Your task to perform on an android device: Open Reddit.com Image 0: 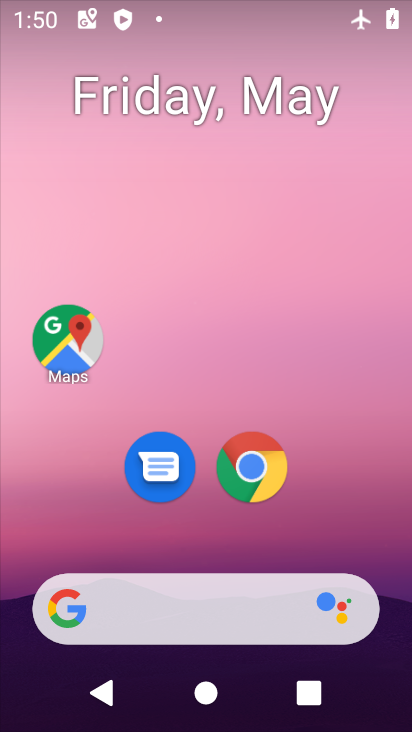
Step 0: drag from (365, 464) to (366, 103)
Your task to perform on an android device: Open Reddit.com Image 1: 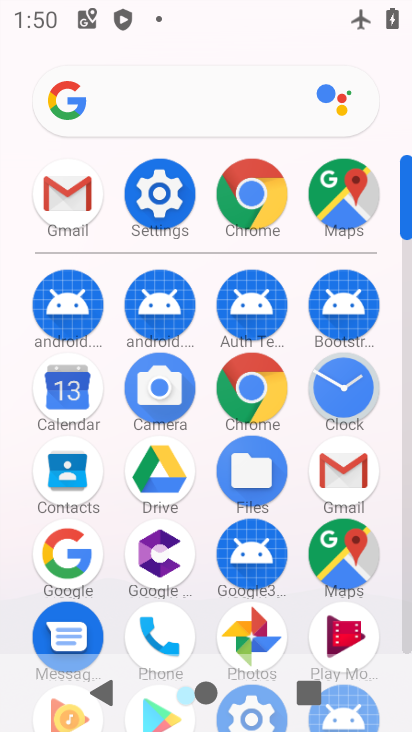
Step 1: click (251, 198)
Your task to perform on an android device: Open Reddit.com Image 2: 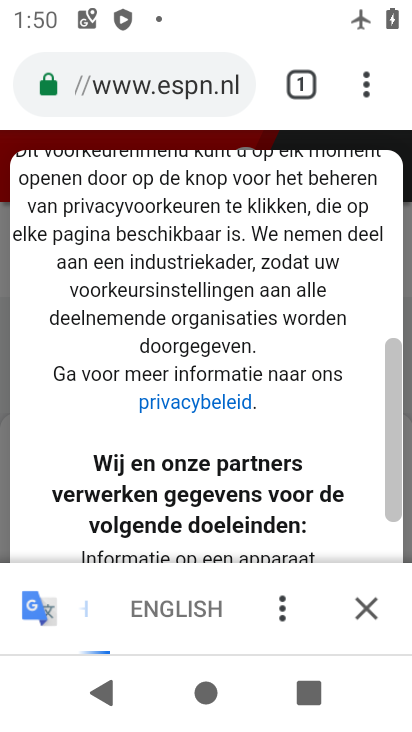
Step 2: click (186, 86)
Your task to perform on an android device: Open Reddit.com Image 3: 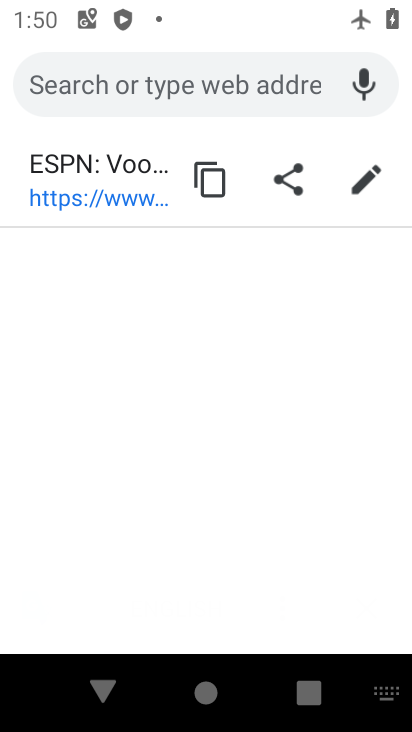
Step 3: type "reddit"
Your task to perform on an android device: Open Reddit.com Image 4: 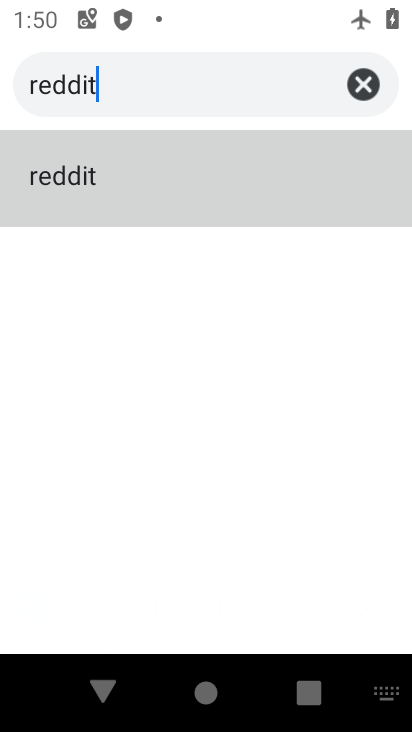
Step 4: click (115, 167)
Your task to perform on an android device: Open Reddit.com Image 5: 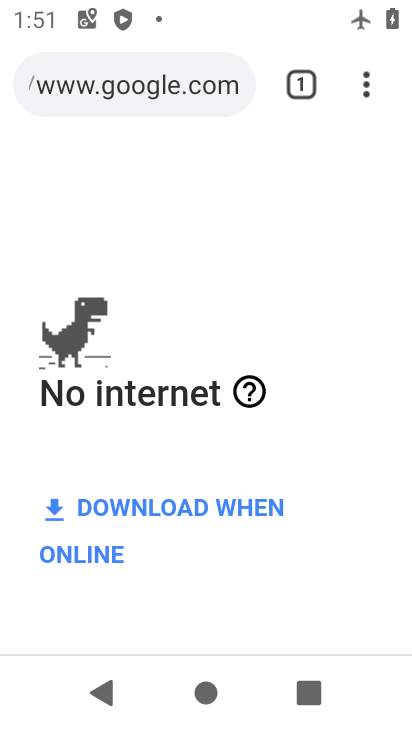
Step 5: task complete